Your task to perform on an android device: toggle wifi Image 0: 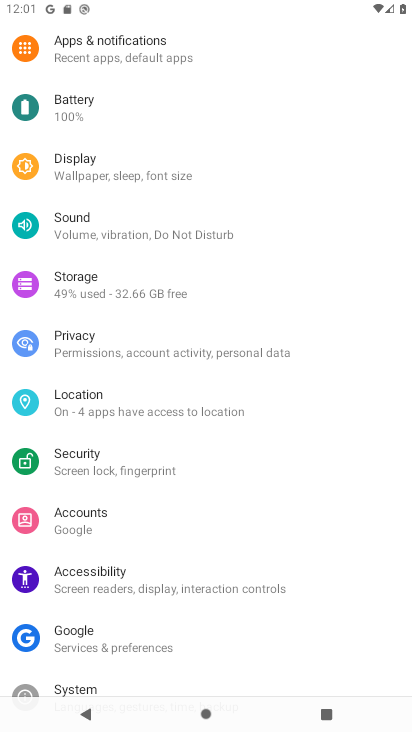
Step 0: drag from (228, 102) to (223, 392)
Your task to perform on an android device: toggle wifi Image 1: 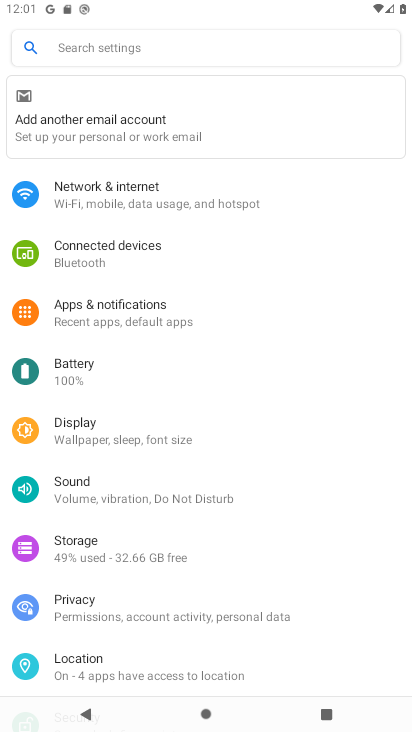
Step 1: click (103, 188)
Your task to perform on an android device: toggle wifi Image 2: 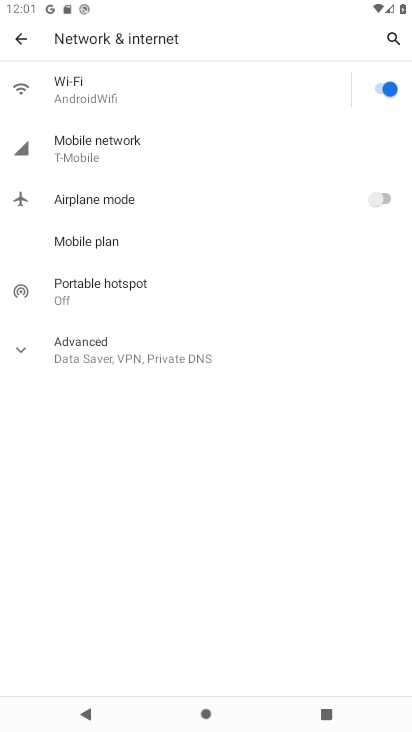
Step 2: click (393, 85)
Your task to perform on an android device: toggle wifi Image 3: 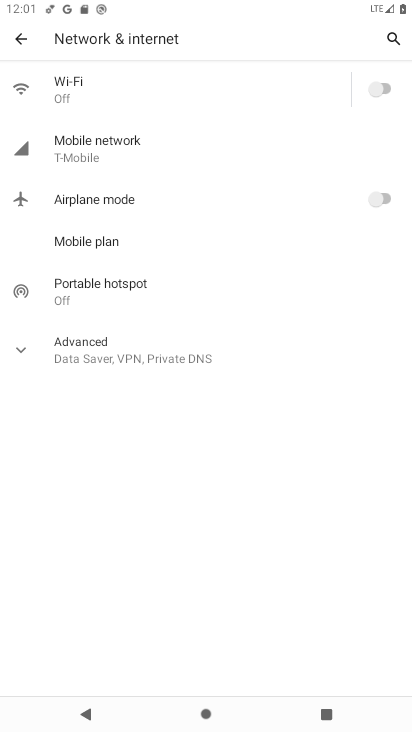
Step 3: task complete